Your task to perform on an android device: search for starred emails in the gmail app Image 0: 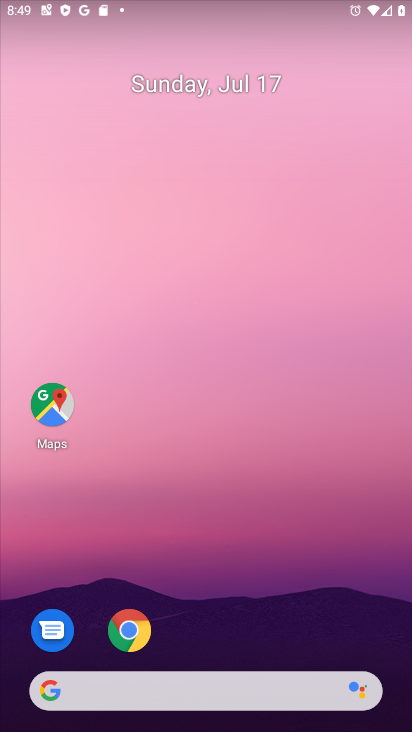
Step 0: drag from (206, 601) to (187, 191)
Your task to perform on an android device: search for starred emails in the gmail app Image 1: 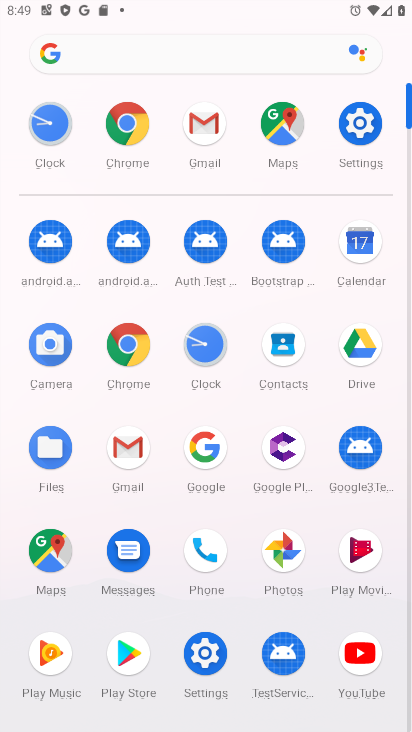
Step 1: click (200, 150)
Your task to perform on an android device: search for starred emails in the gmail app Image 2: 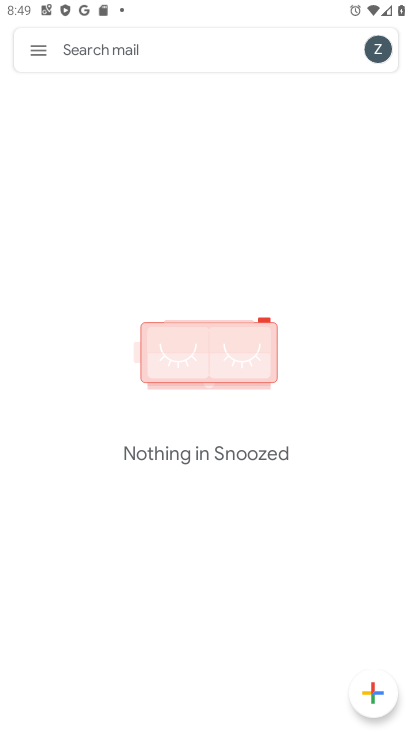
Step 2: click (38, 50)
Your task to perform on an android device: search for starred emails in the gmail app Image 3: 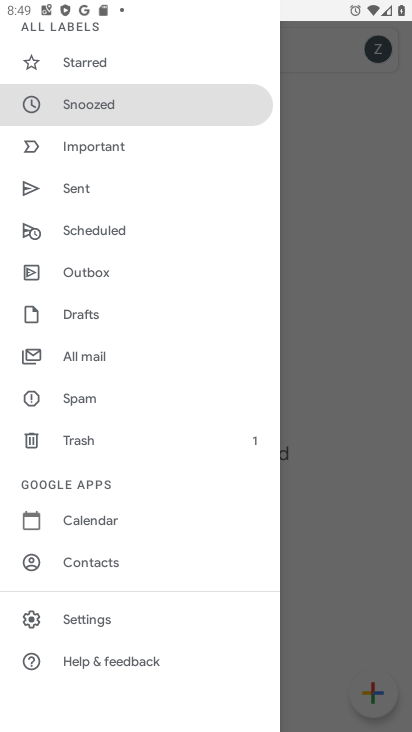
Step 3: click (109, 71)
Your task to perform on an android device: search for starred emails in the gmail app Image 4: 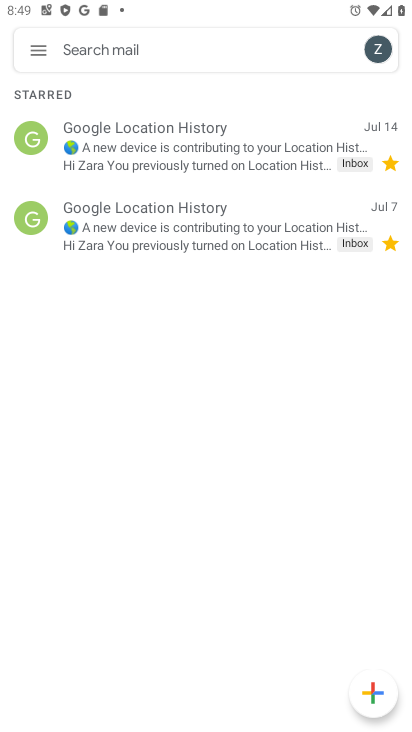
Step 4: task complete